Your task to perform on an android device: Go to ESPN.com Image 0: 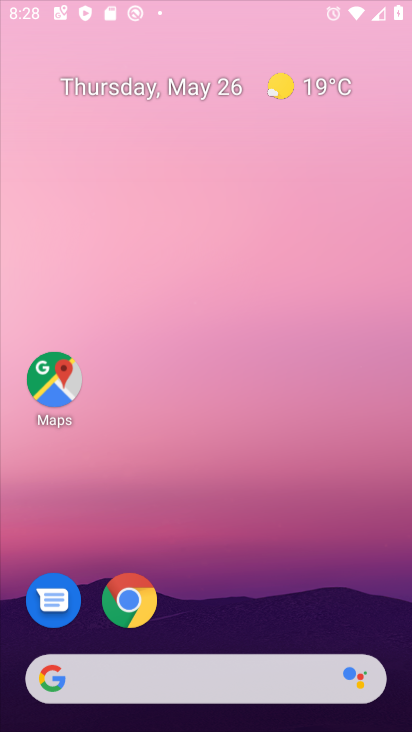
Step 0: press home button
Your task to perform on an android device: Go to ESPN.com Image 1: 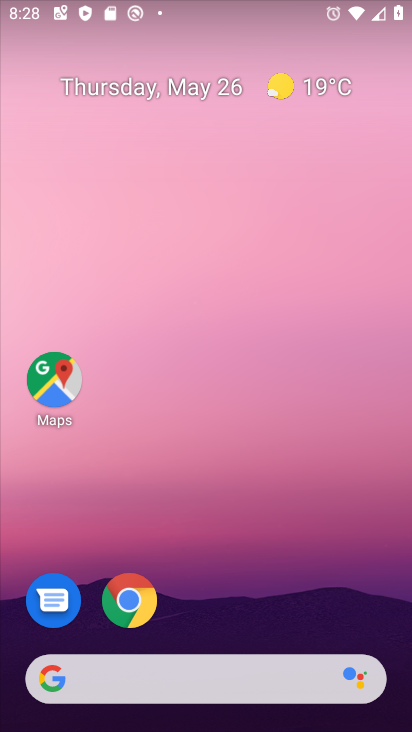
Step 1: click (41, 681)
Your task to perform on an android device: Go to ESPN.com Image 2: 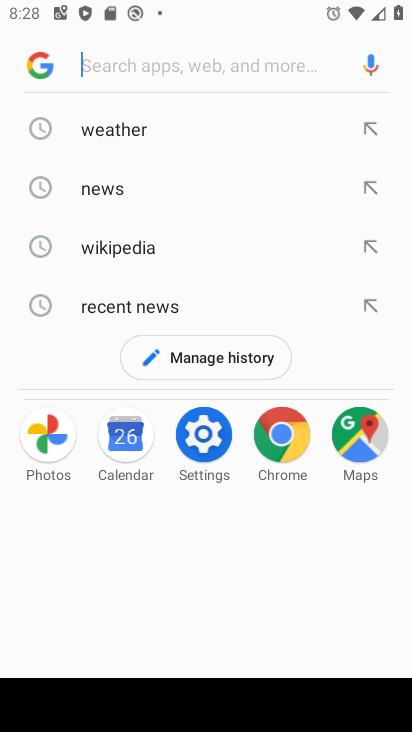
Step 2: type "ESPN.com"
Your task to perform on an android device: Go to ESPN.com Image 3: 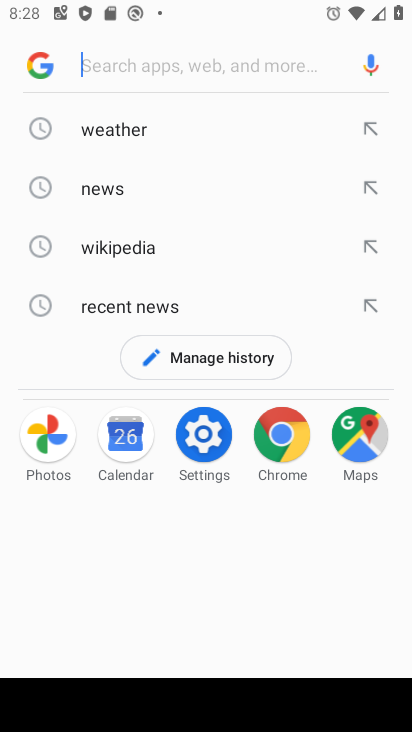
Step 3: click (177, 70)
Your task to perform on an android device: Go to ESPN.com Image 4: 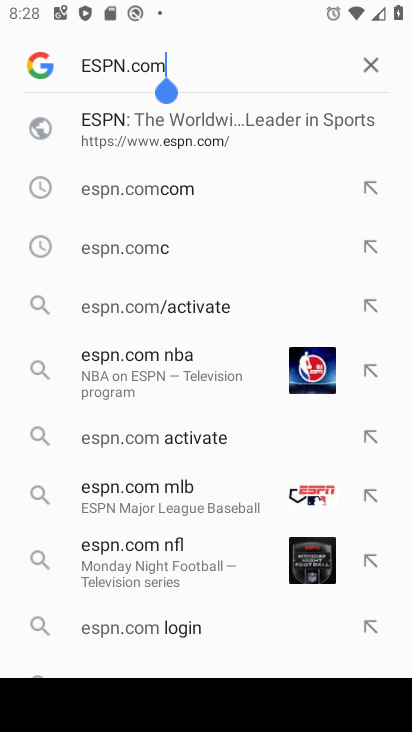
Step 4: click (117, 131)
Your task to perform on an android device: Go to ESPN.com Image 5: 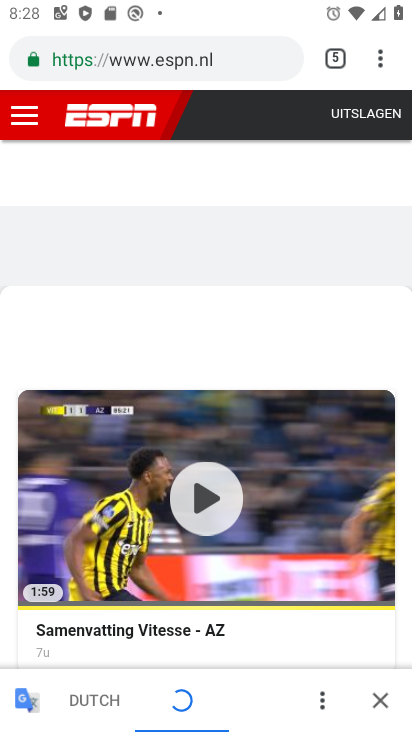
Step 5: task complete